Your task to perform on an android device: change the clock display to digital Image 0: 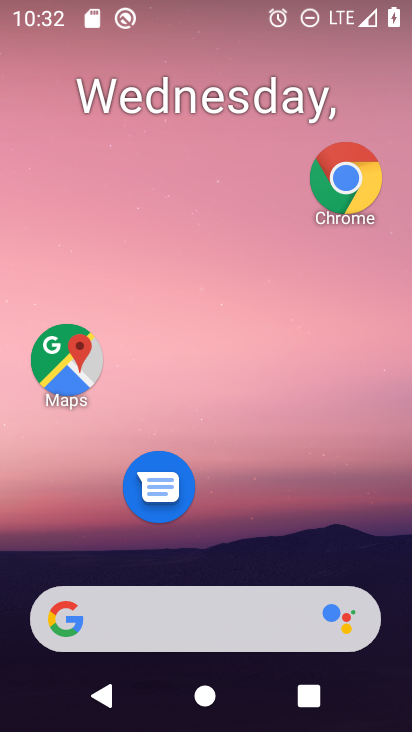
Step 0: drag from (229, 660) to (226, 72)
Your task to perform on an android device: change the clock display to digital Image 1: 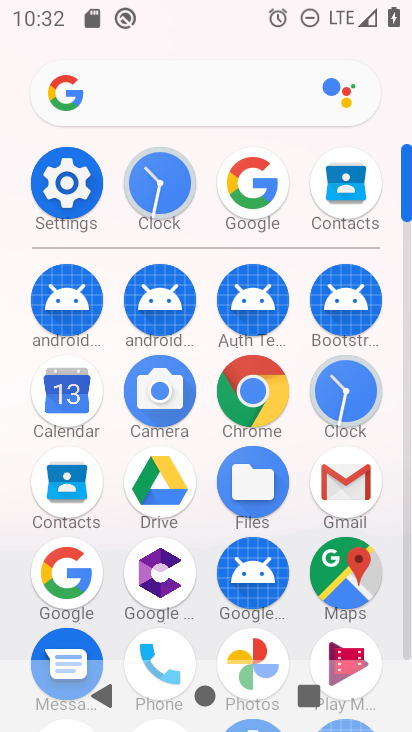
Step 1: click (350, 397)
Your task to perform on an android device: change the clock display to digital Image 2: 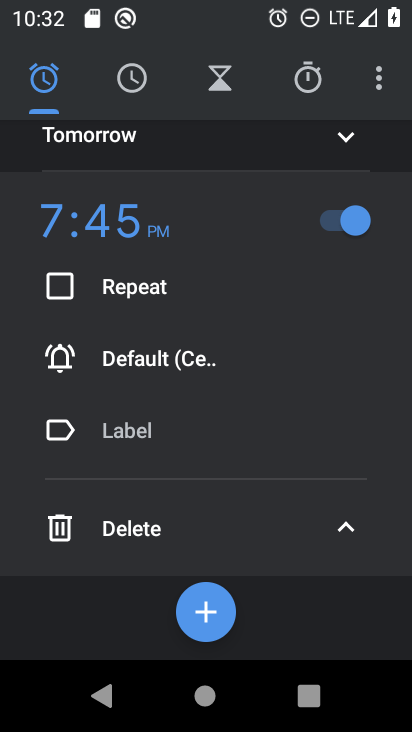
Step 2: click (383, 89)
Your task to perform on an android device: change the clock display to digital Image 3: 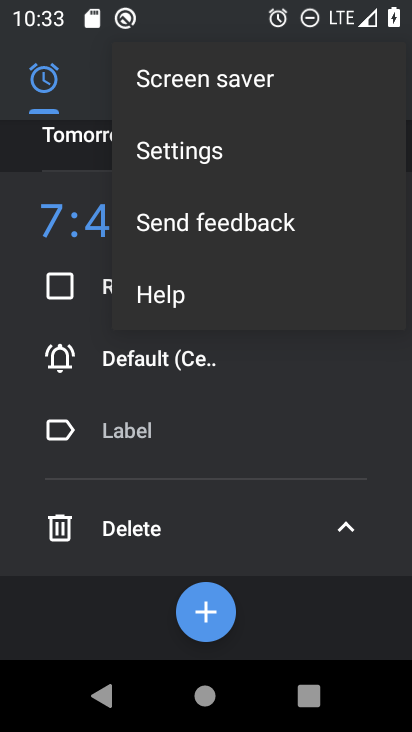
Step 3: click (194, 160)
Your task to perform on an android device: change the clock display to digital Image 4: 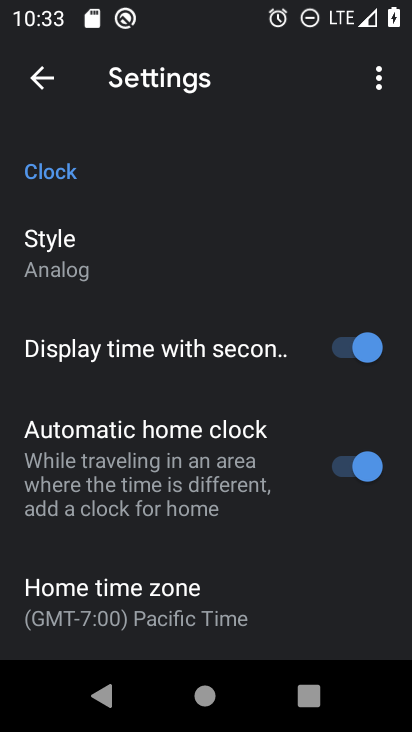
Step 4: click (114, 248)
Your task to perform on an android device: change the clock display to digital Image 5: 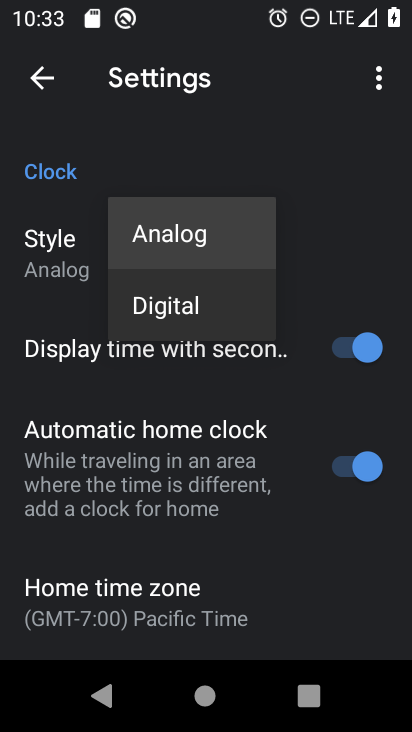
Step 5: click (172, 309)
Your task to perform on an android device: change the clock display to digital Image 6: 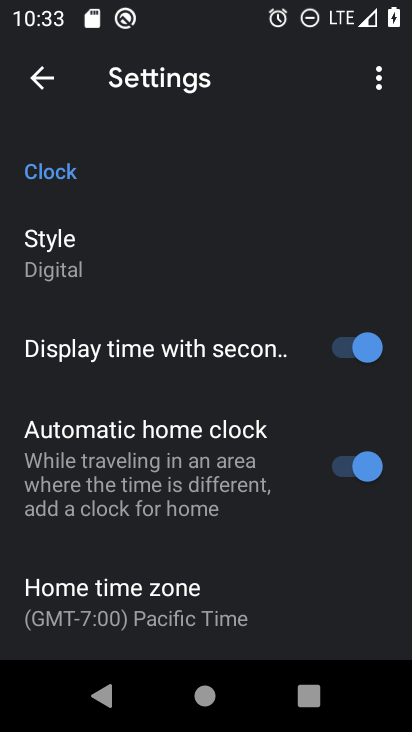
Step 6: task complete